Your task to perform on an android device: change your default location settings in chrome Image 0: 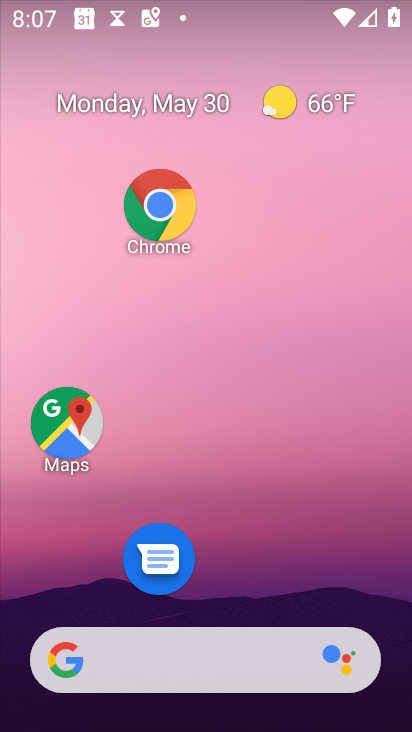
Step 0: drag from (243, 696) to (188, 99)
Your task to perform on an android device: change your default location settings in chrome Image 1: 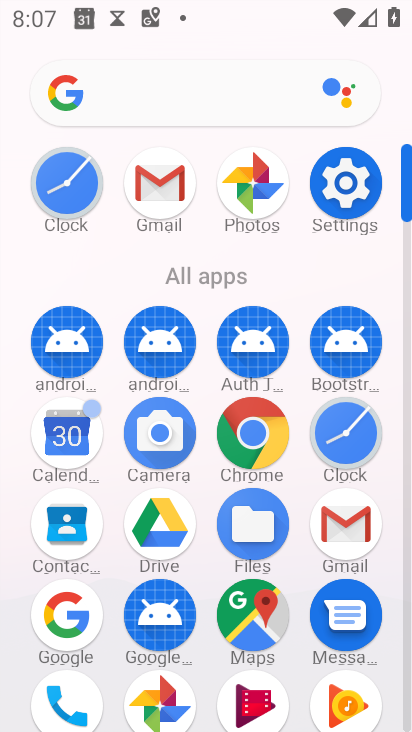
Step 1: click (257, 433)
Your task to perform on an android device: change your default location settings in chrome Image 2: 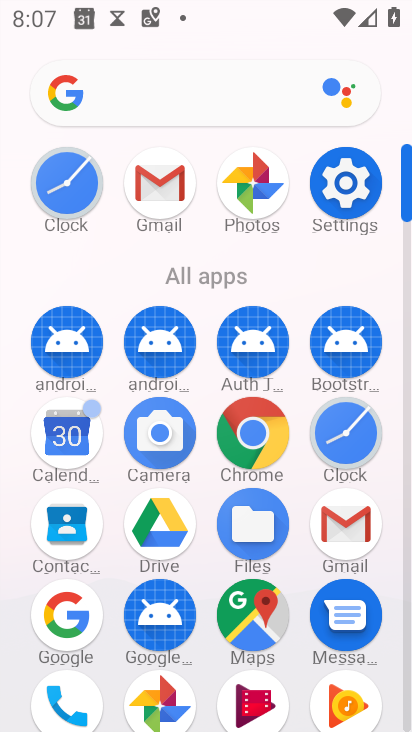
Step 2: click (249, 431)
Your task to perform on an android device: change your default location settings in chrome Image 3: 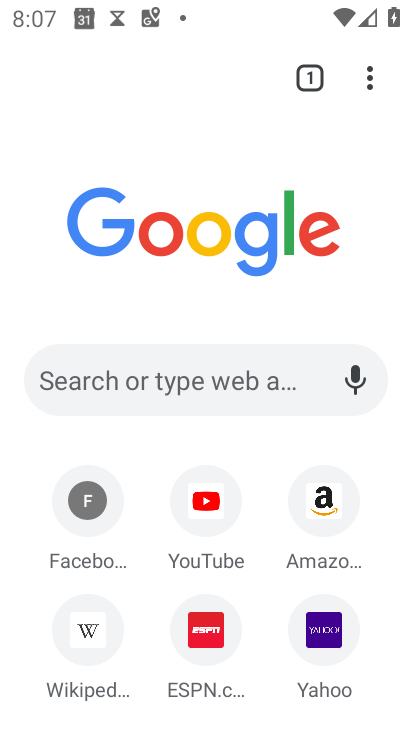
Step 3: drag from (369, 72) to (93, 607)
Your task to perform on an android device: change your default location settings in chrome Image 4: 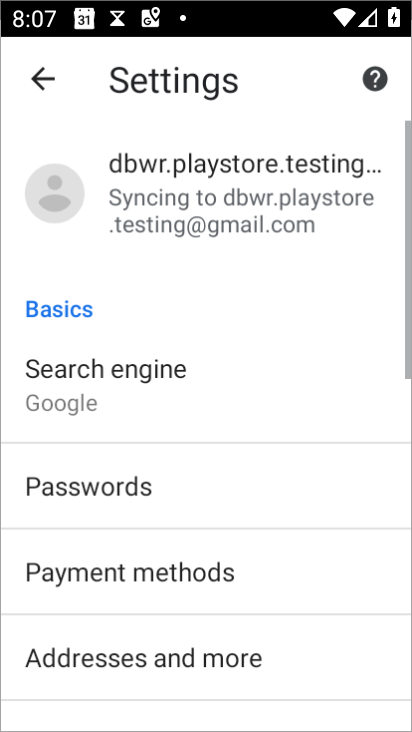
Step 4: click (97, 613)
Your task to perform on an android device: change your default location settings in chrome Image 5: 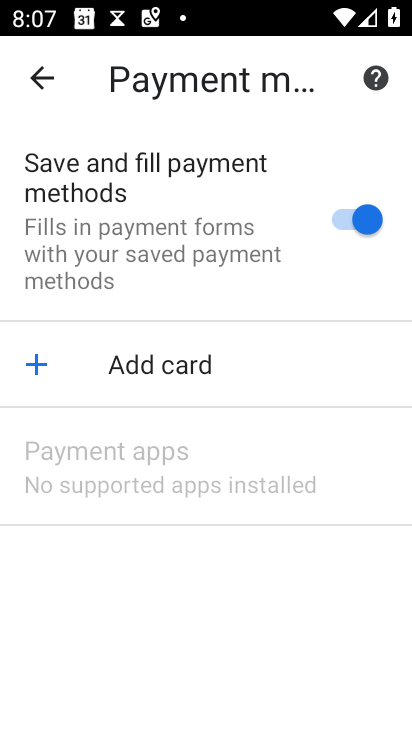
Step 5: click (42, 80)
Your task to perform on an android device: change your default location settings in chrome Image 6: 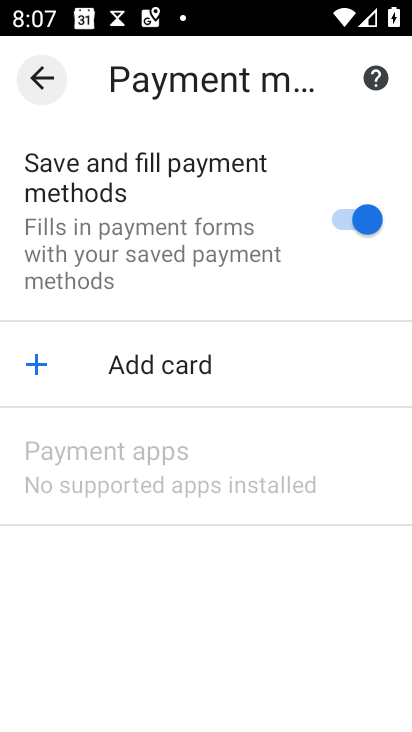
Step 6: click (41, 79)
Your task to perform on an android device: change your default location settings in chrome Image 7: 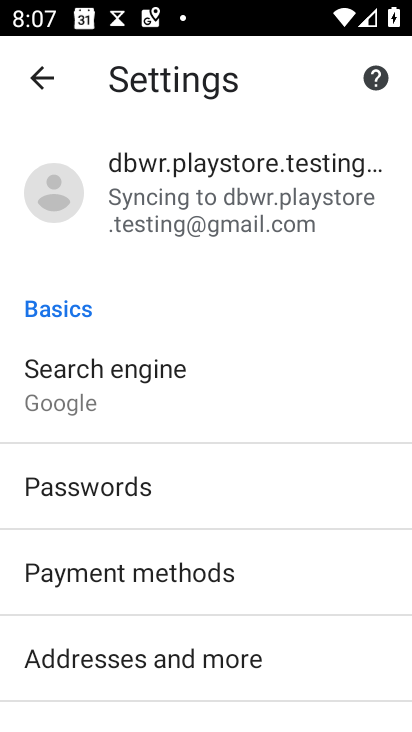
Step 7: click (63, 385)
Your task to perform on an android device: change your default location settings in chrome Image 8: 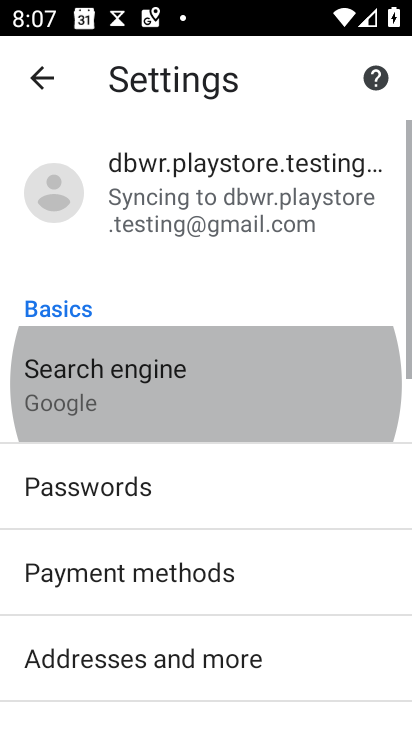
Step 8: click (64, 385)
Your task to perform on an android device: change your default location settings in chrome Image 9: 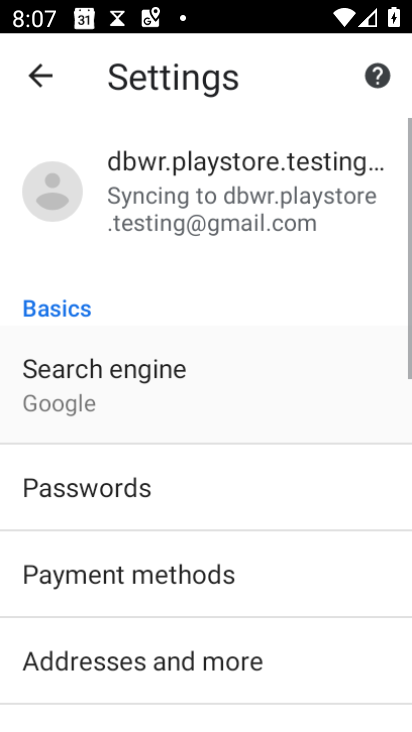
Step 9: click (73, 385)
Your task to perform on an android device: change your default location settings in chrome Image 10: 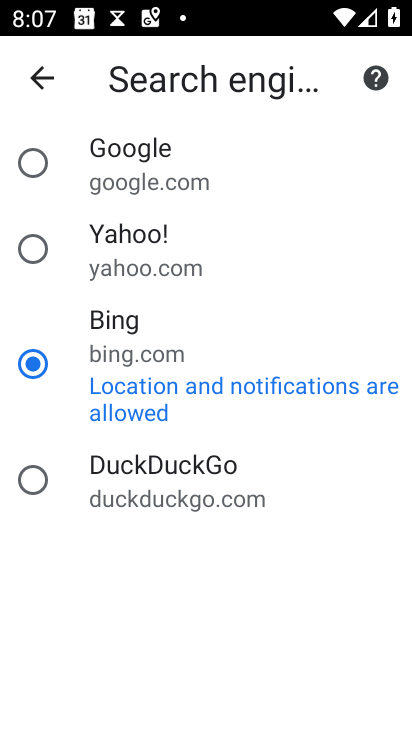
Step 10: click (30, 146)
Your task to perform on an android device: change your default location settings in chrome Image 11: 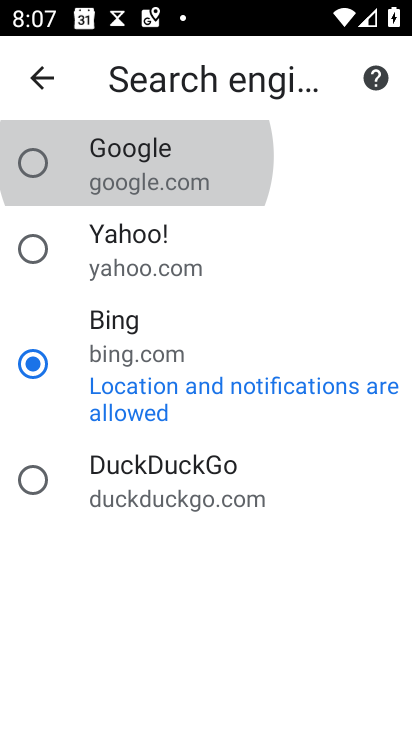
Step 11: click (30, 146)
Your task to perform on an android device: change your default location settings in chrome Image 12: 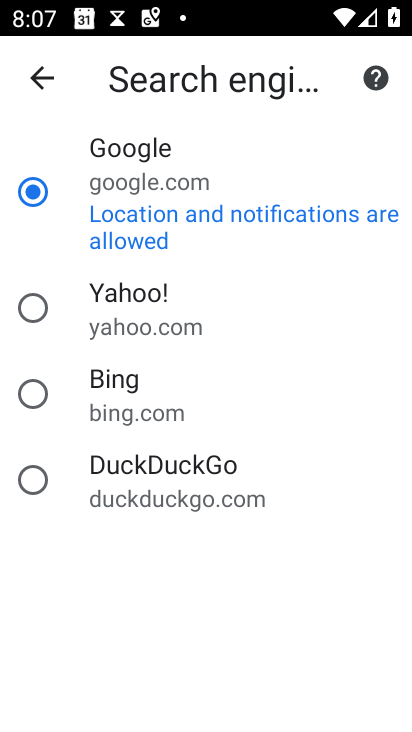
Step 12: task complete